Your task to perform on an android device: find photos in the google photos app Image 0: 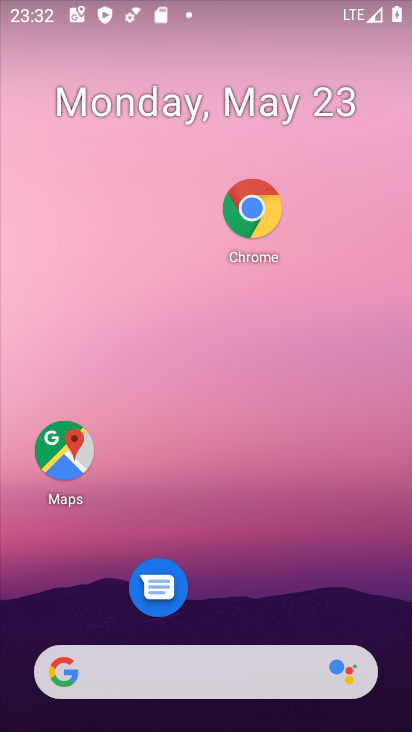
Step 0: drag from (249, 616) to (160, 112)
Your task to perform on an android device: find photos in the google photos app Image 1: 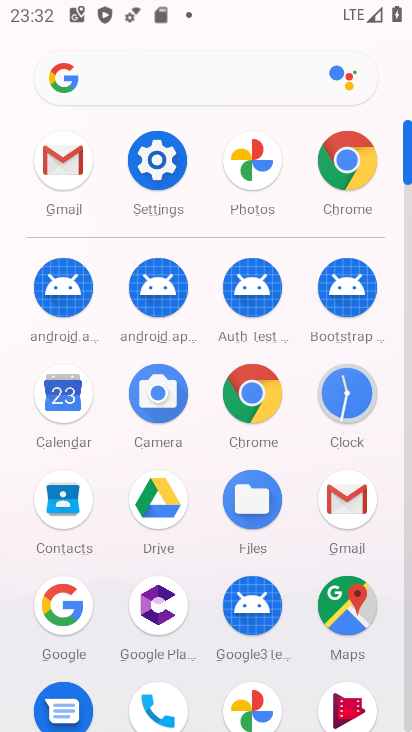
Step 1: click (262, 693)
Your task to perform on an android device: find photos in the google photos app Image 2: 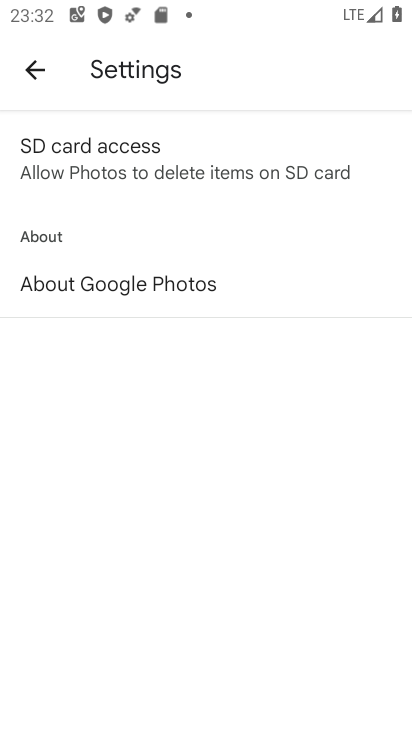
Step 2: click (29, 58)
Your task to perform on an android device: find photos in the google photos app Image 3: 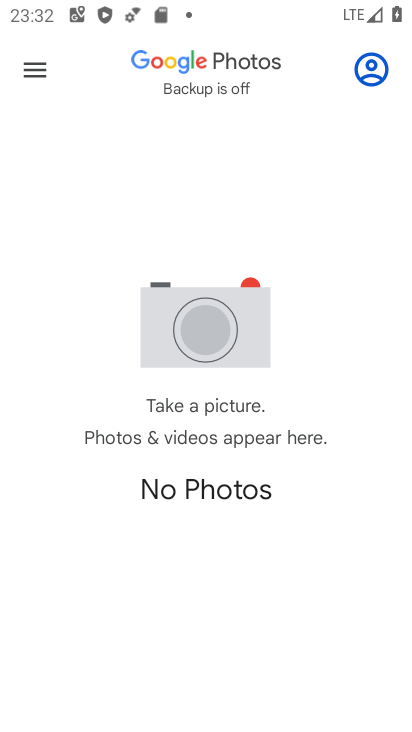
Step 3: task complete